Your task to perform on an android device: turn off notifications in google photos Image 0: 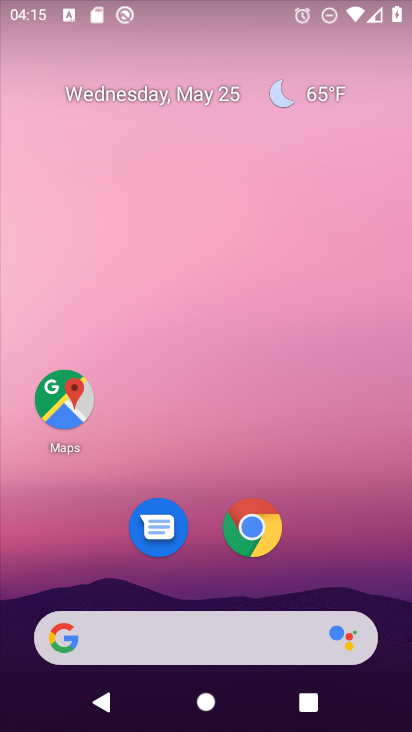
Step 0: drag from (294, 575) to (339, 14)
Your task to perform on an android device: turn off notifications in google photos Image 1: 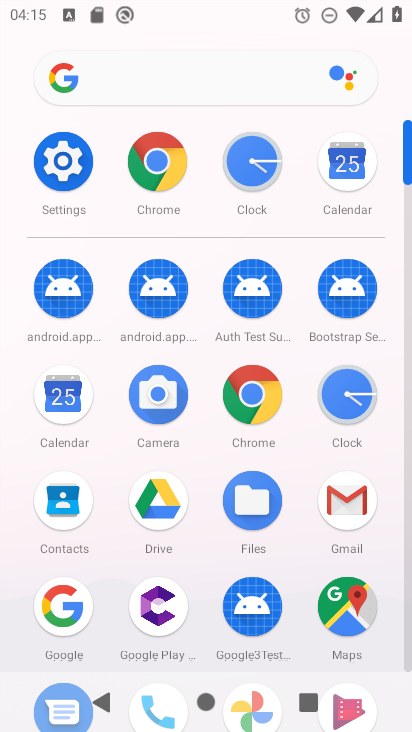
Step 1: drag from (315, 638) to (338, 348)
Your task to perform on an android device: turn off notifications in google photos Image 2: 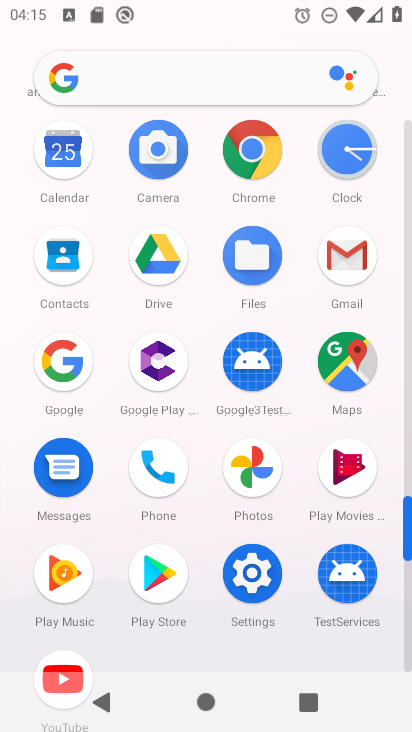
Step 2: click (250, 495)
Your task to perform on an android device: turn off notifications in google photos Image 3: 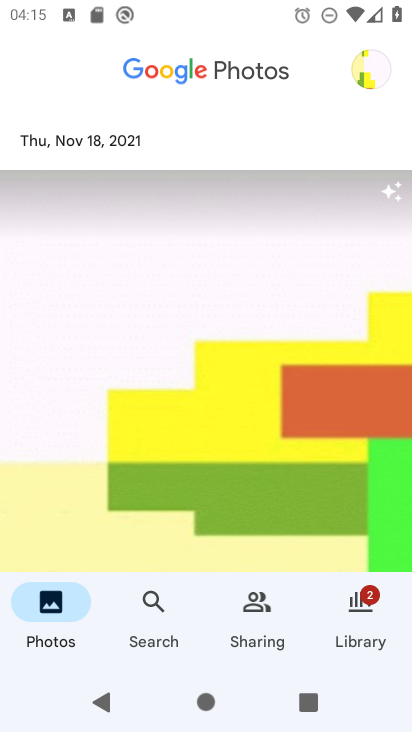
Step 3: click (380, 72)
Your task to perform on an android device: turn off notifications in google photos Image 4: 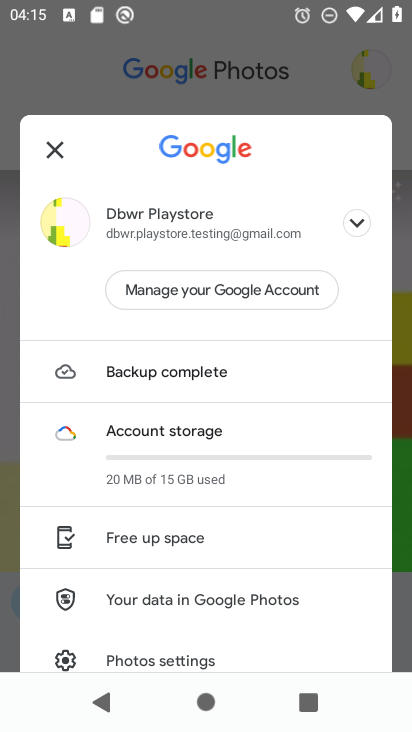
Step 4: click (236, 663)
Your task to perform on an android device: turn off notifications in google photos Image 5: 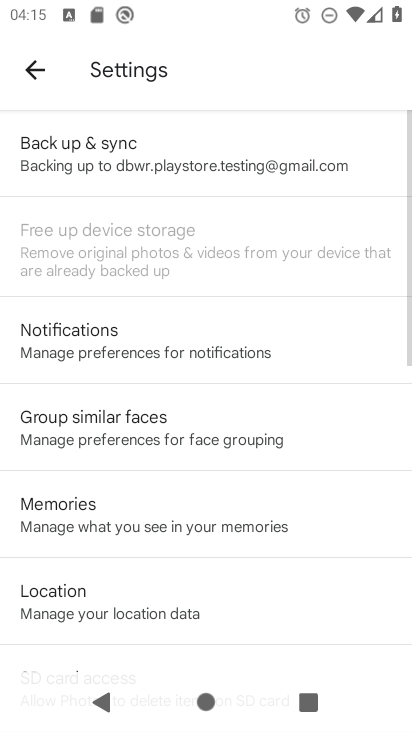
Step 5: click (248, 317)
Your task to perform on an android device: turn off notifications in google photos Image 6: 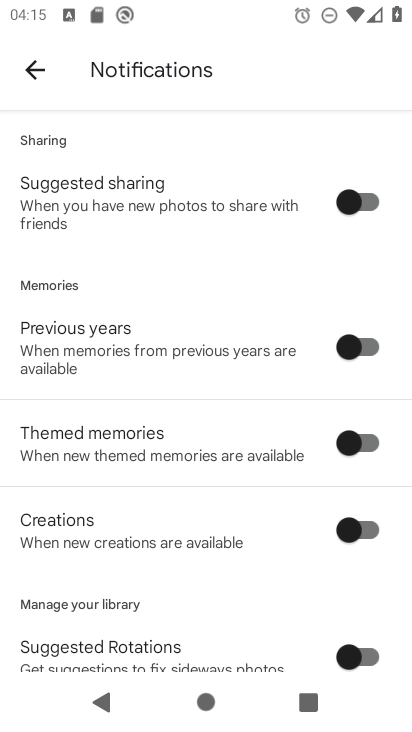
Step 6: drag from (146, 528) to (167, 140)
Your task to perform on an android device: turn off notifications in google photos Image 7: 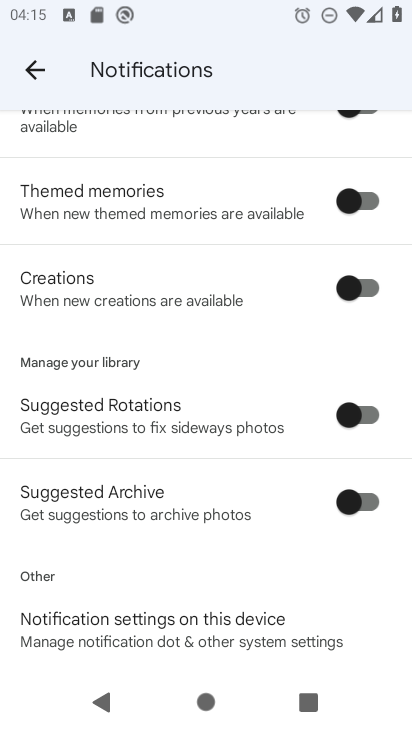
Step 7: click (158, 642)
Your task to perform on an android device: turn off notifications in google photos Image 8: 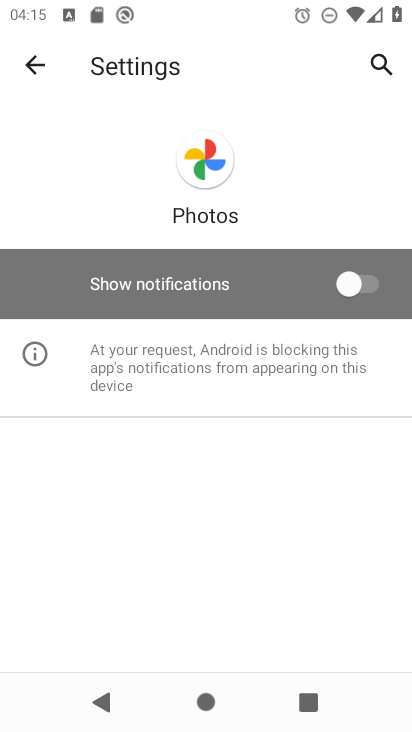
Step 8: click (374, 282)
Your task to perform on an android device: turn off notifications in google photos Image 9: 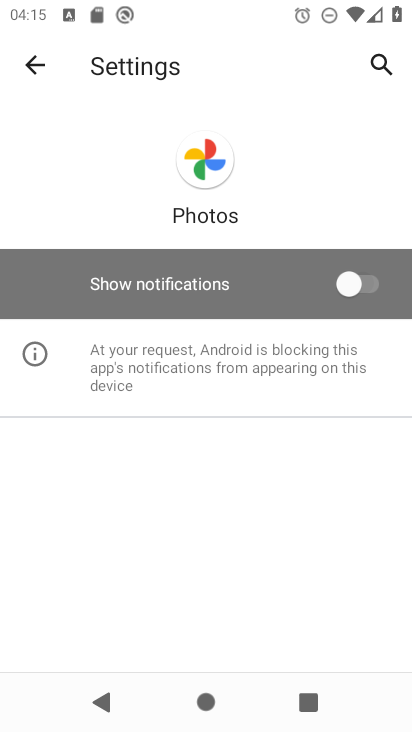
Step 9: click (374, 282)
Your task to perform on an android device: turn off notifications in google photos Image 10: 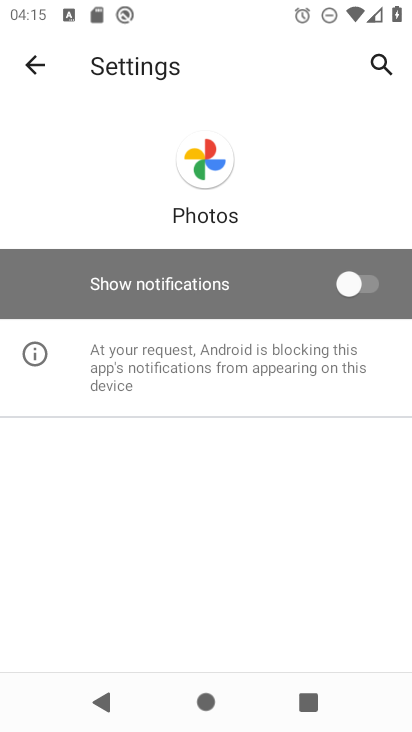
Step 10: task complete